Your task to perform on an android device: Open Google Chrome and click the shortcut for Amazon.com Image 0: 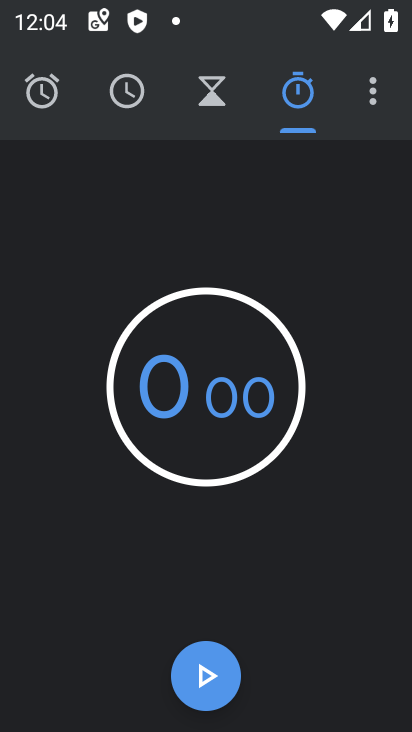
Step 0: press home button
Your task to perform on an android device: Open Google Chrome and click the shortcut for Amazon.com Image 1: 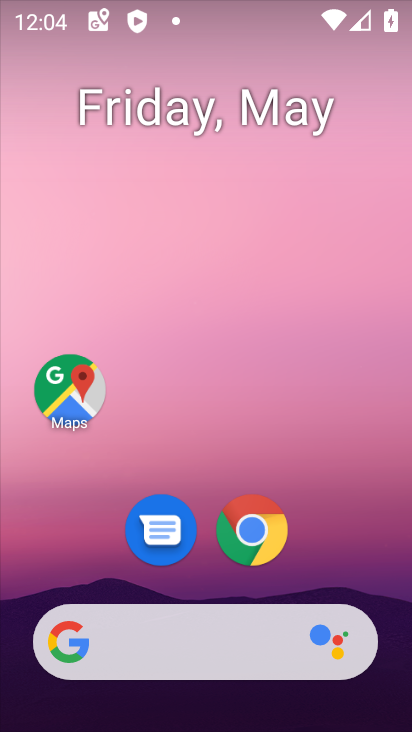
Step 1: click (250, 532)
Your task to perform on an android device: Open Google Chrome and click the shortcut for Amazon.com Image 2: 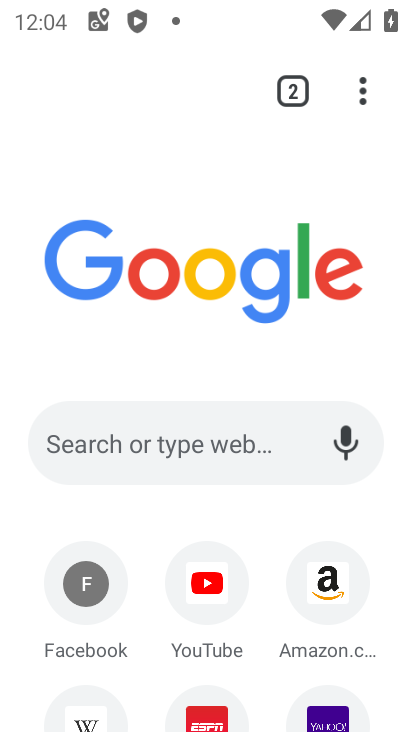
Step 2: click (326, 581)
Your task to perform on an android device: Open Google Chrome and click the shortcut for Amazon.com Image 3: 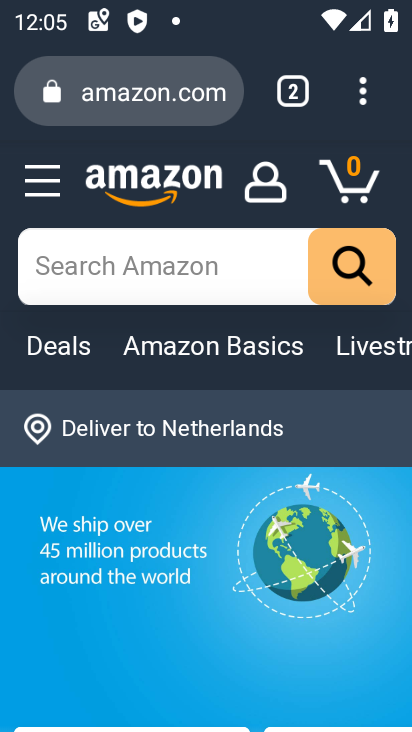
Step 3: click (363, 90)
Your task to perform on an android device: Open Google Chrome and click the shortcut for Amazon.com Image 4: 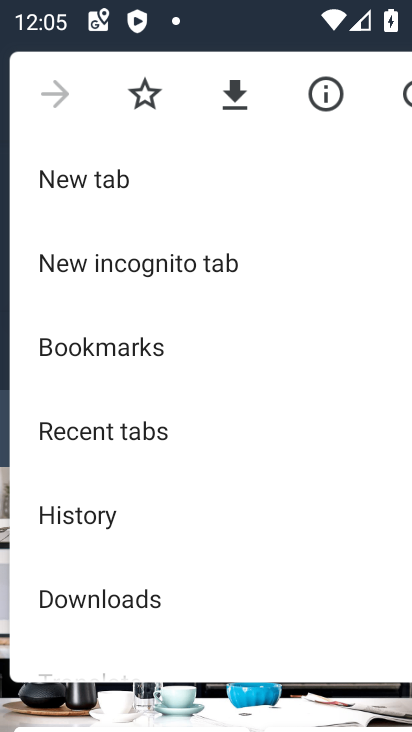
Step 4: drag from (108, 459) to (183, 366)
Your task to perform on an android device: Open Google Chrome and click the shortcut for Amazon.com Image 5: 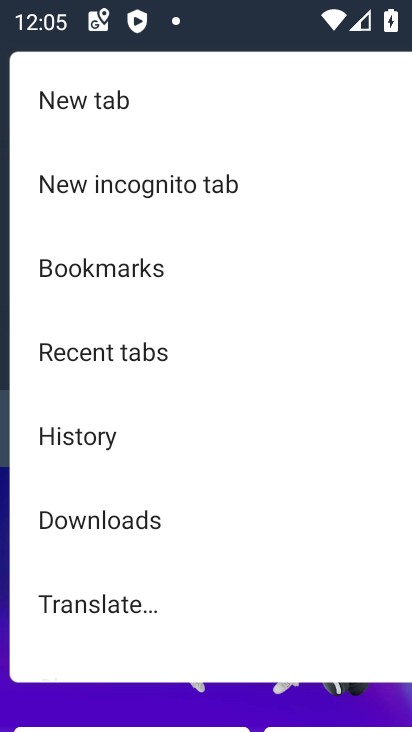
Step 5: drag from (108, 474) to (161, 398)
Your task to perform on an android device: Open Google Chrome and click the shortcut for Amazon.com Image 6: 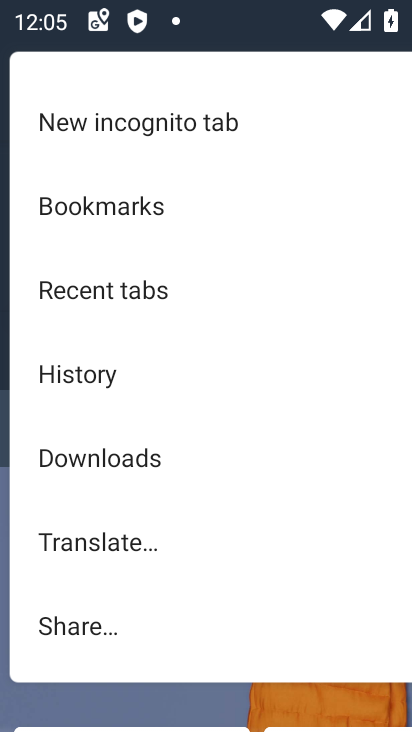
Step 6: drag from (104, 491) to (168, 398)
Your task to perform on an android device: Open Google Chrome and click the shortcut for Amazon.com Image 7: 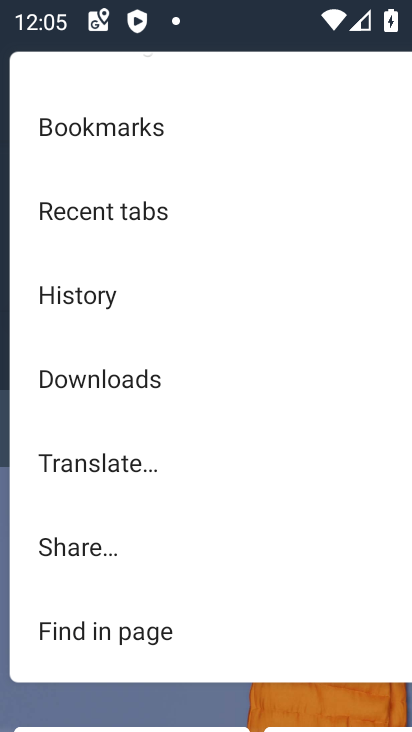
Step 7: drag from (110, 511) to (184, 419)
Your task to perform on an android device: Open Google Chrome and click the shortcut for Amazon.com Image 8: 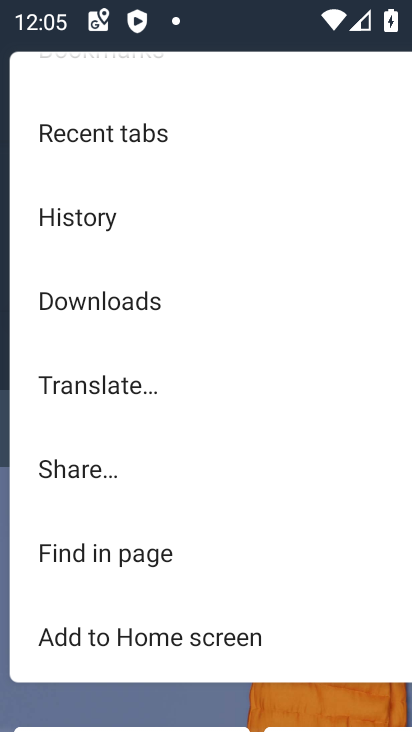
Step 8: drag from (120, 520) to (186, 435)
Your task to perform on an android device: Open Google Chrome and click the shortcut for Amazon.com Image 9: 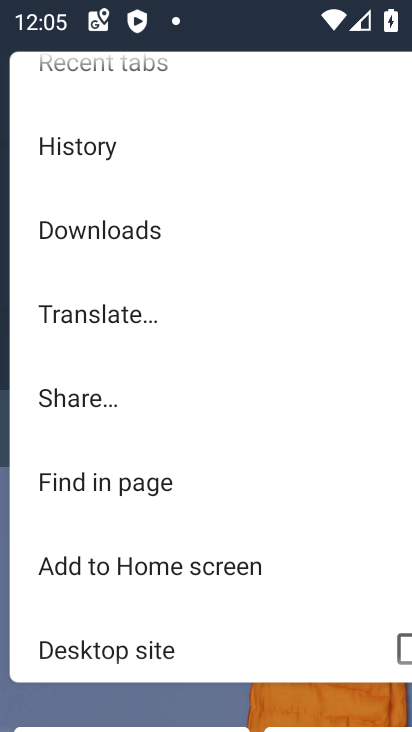
Step 9: click (163, 569)
Your task to perform on an android device: Open Google Chrome and click the shortcut for Amazon.com Image 10: 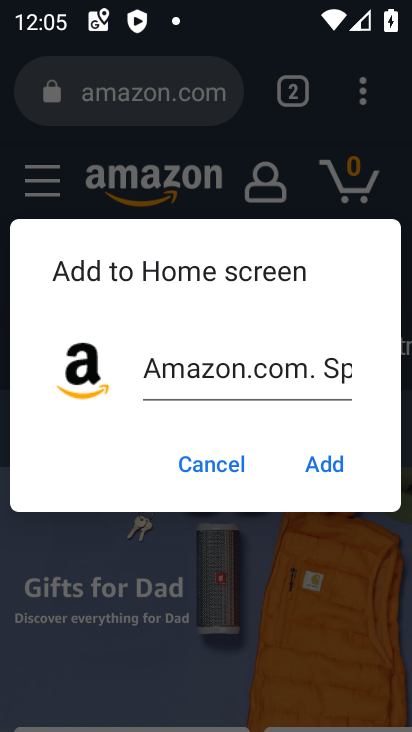
Step 10: click (326, 470)
Your task to perform on an android device: Open Google Chrome and click the shortcut for Amazon.com Image 11: 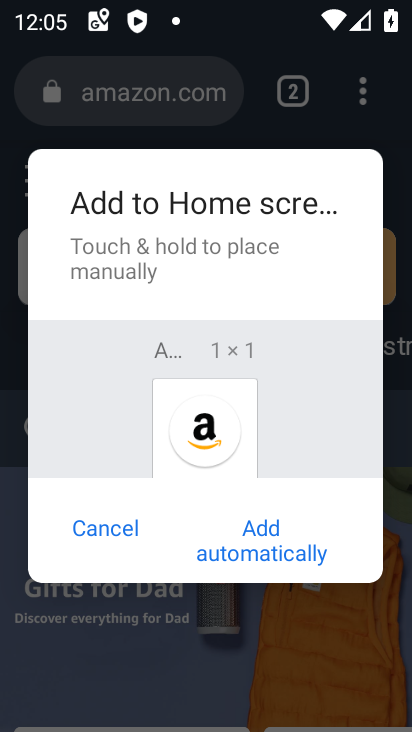
Step 11: click (274, 535)
Your task to perform on an android device: Open Google Chrome and click the shortcut for Amazon.com Image 12: 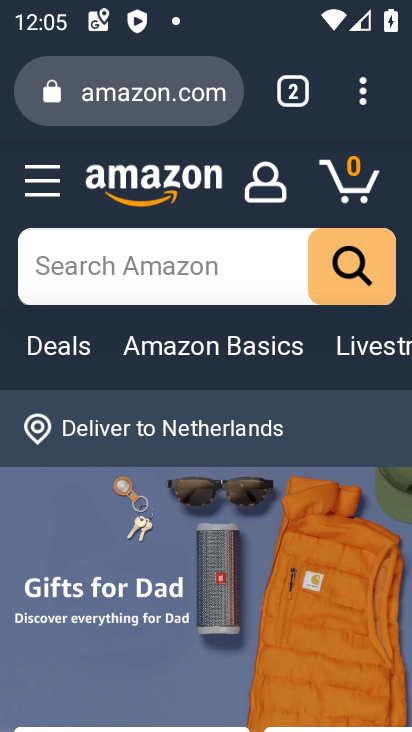
Step 12: task complete